Your task to perform on an android device: Search for pizza restaurants on Maps Image 0: 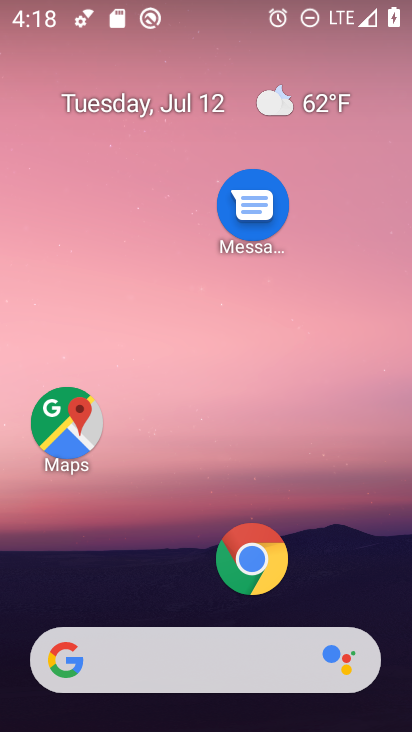
Step 0: click (77, 446)
Your task to perform on an android device: Search for pizza restaurants on Maps Image 1: 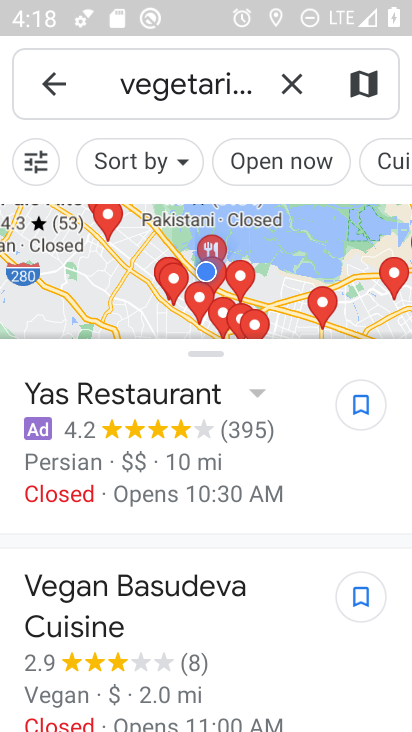
Step 1: click (296, 78)
Your task to perform on an android device: Search for pizza restaurants on Maps Image 2: 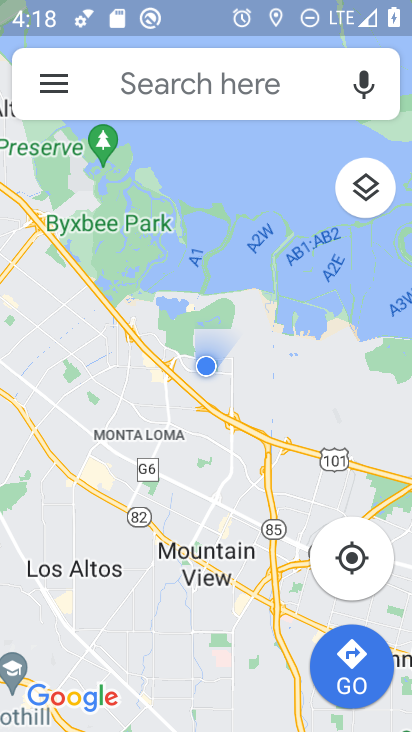
Step 2: click (233, 93)
Your task to perform on an android device: Search for pizza restaurants on Maps Image 3: 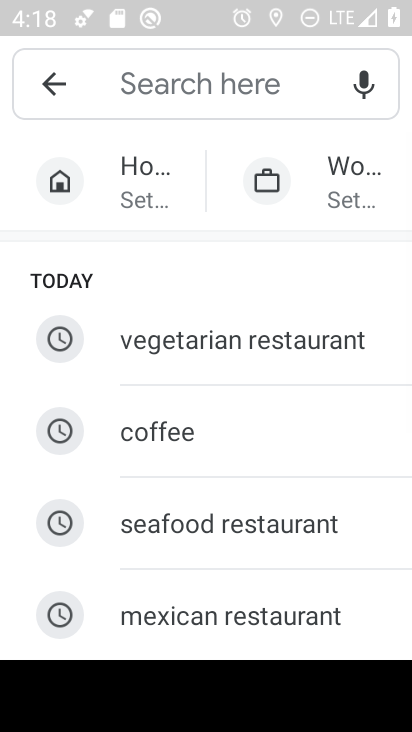
Step 3: drag from (182, 592) to (267, 143)
Your task to perform on an android device: Search for pizza restaurants on Maps Image 4: 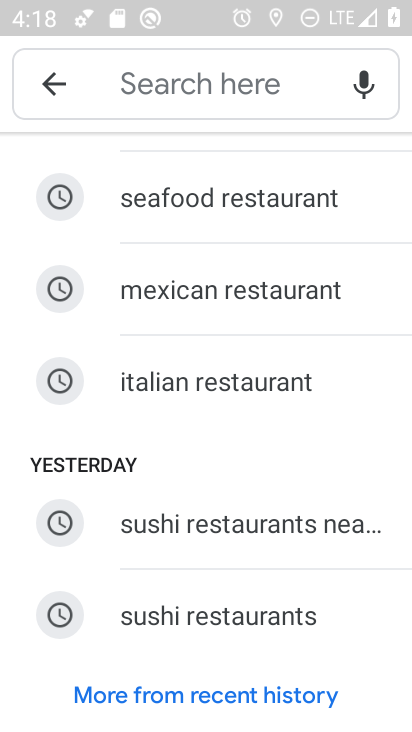
Step 4: click (162, 64)
Your task to perform on an android device: Search for pizza restaurants on Maps Image 5: 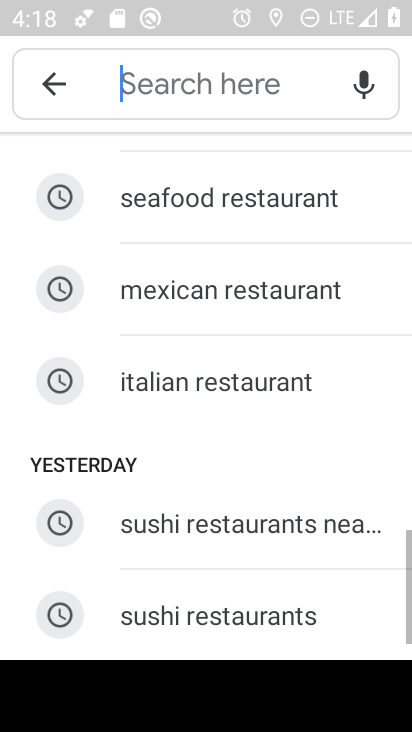
Step 5: type ""
Your task to perform on an android device: Search for pizza restaurants on Maps Image 6: 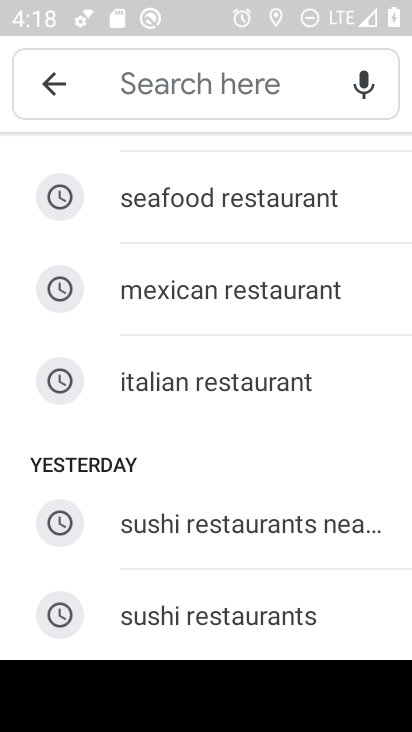
Step 6: type "pizza"
Your task to perform on an android device: Search for pizza restaurants on Maps Image 7: 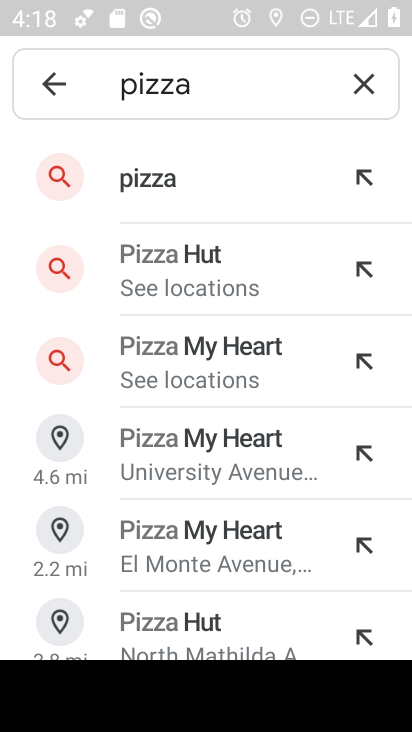
Step 7: type " restra"
Your task to perform on an android device: Search for pizza restaurants on Maps Image 8: 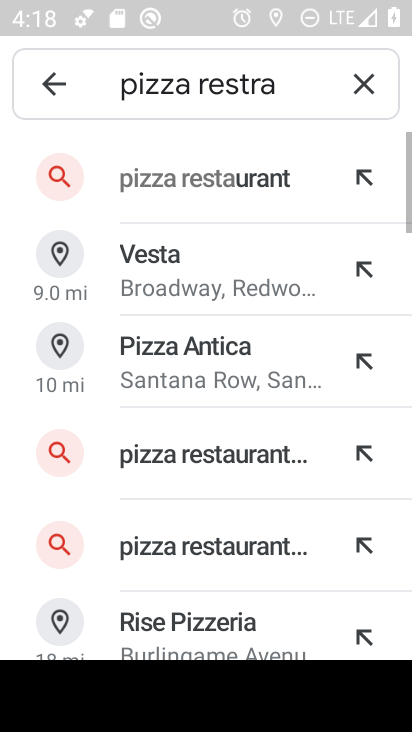
Step 8: click (169, 170)
Your task to perform on an android device: Search for pizza restaurants on Maps Image 9: 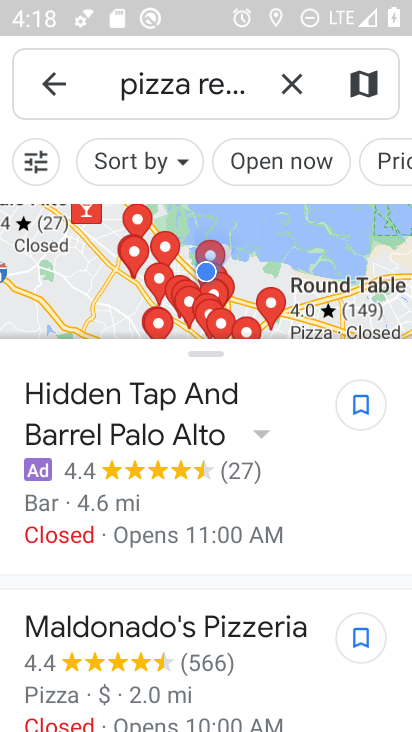
Step 9: task complete